Your task to perform on an android device: turn off picture-in-picture Image 0: 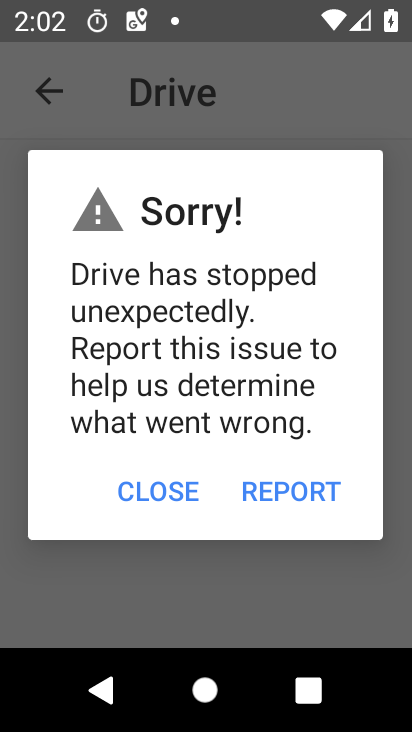
Step 0: press home button
Your task to perform on an android device: turn off picture-in-picture Image 1: 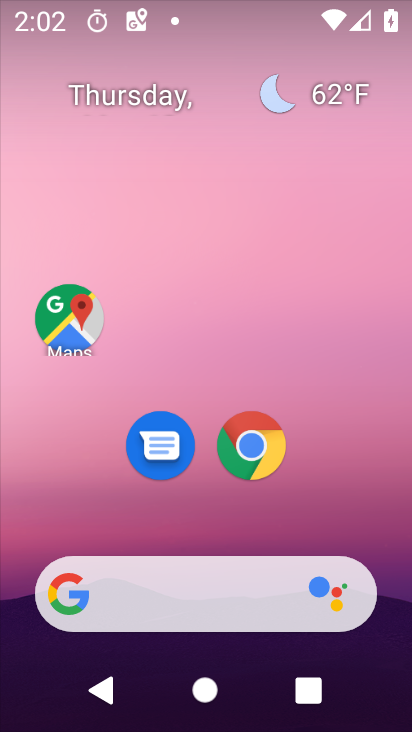
Step 1: click (262, 465)
Your task to perform on an android device: turn off picture-in-picture Image 2: 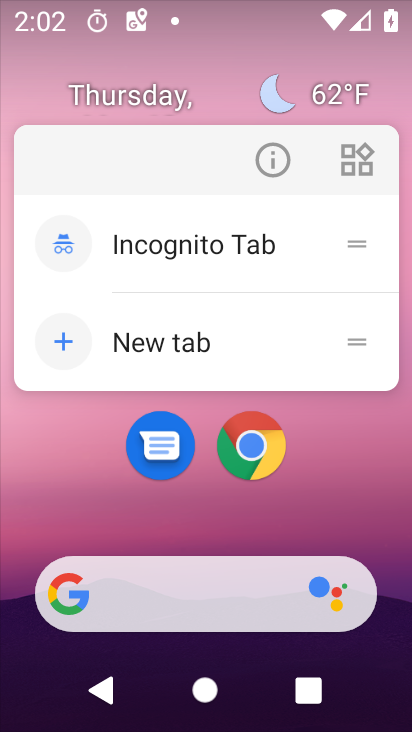
Step 2: click (275, 164)
Your task to perform on an android device: turn off picture-in-picture Image 3: 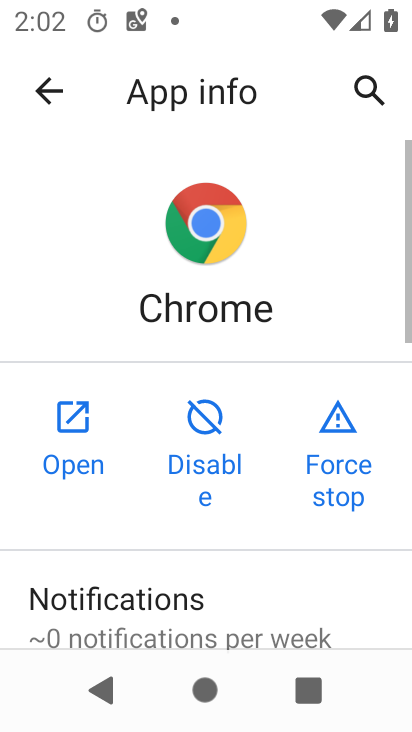
Step 3: drag from (202, 555) to (199, 24)
Your task to perform on an android device: turn off picture-in-picture Image 4: 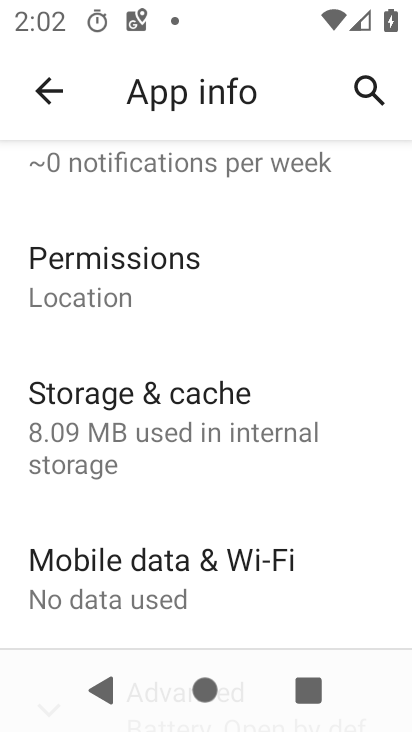
Step 4: drag from (114, 554) to (129, 256)
Your task to perform on an android device: turn off picture-in-picture Image 5: 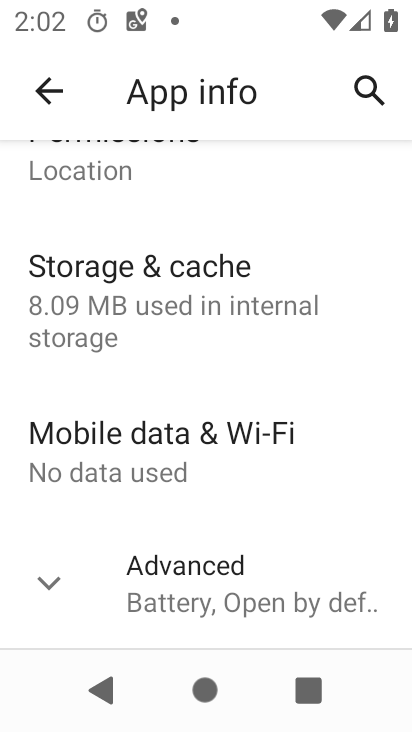
Step 5: click (155, 585)
Your task to perform on an android device: turn off picture-in-picture Image 6: 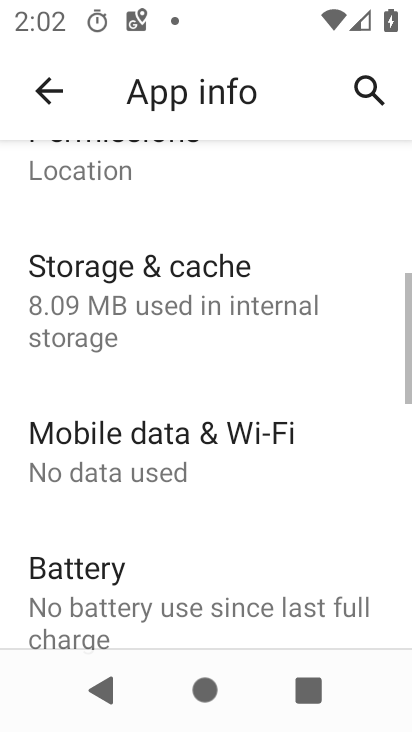
Step 6: drag from (199, 599) to (208, 169)
Your task to perform on an android device: turn off picture-in-picture Image 7: 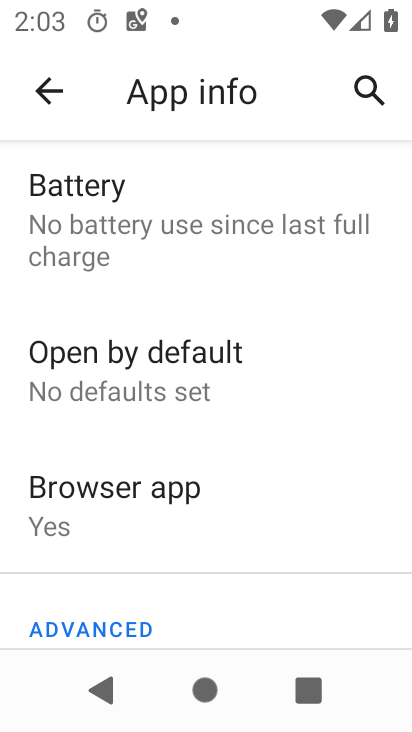
Step 7: drag from (152, 492) to (156, 76)
Your task to perform on an android device: turn off picture-in-picture Image 8: 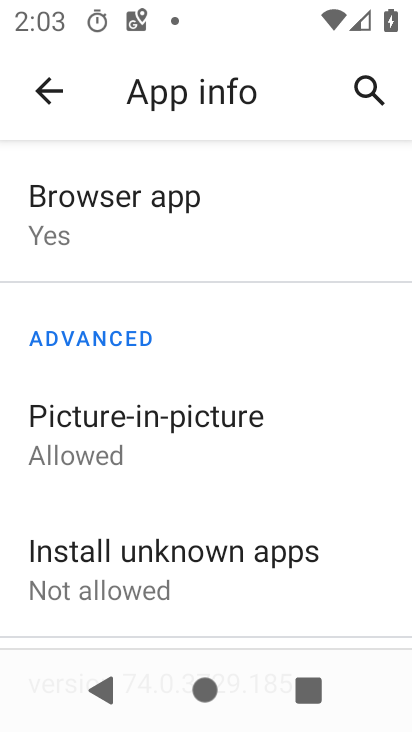
Step 8: click (152, 435)
Your task to perform on an android device: turn off picture-in-picture Image 9: 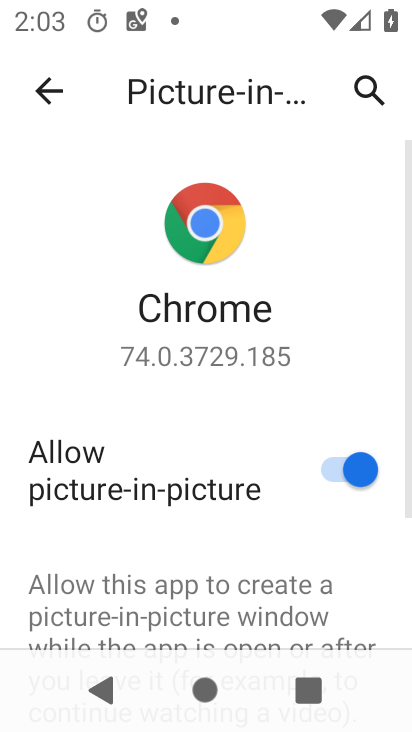
Step 9: click (346, 471)
Your task to perform on an android device: turn off picture-in-picture Image 10: 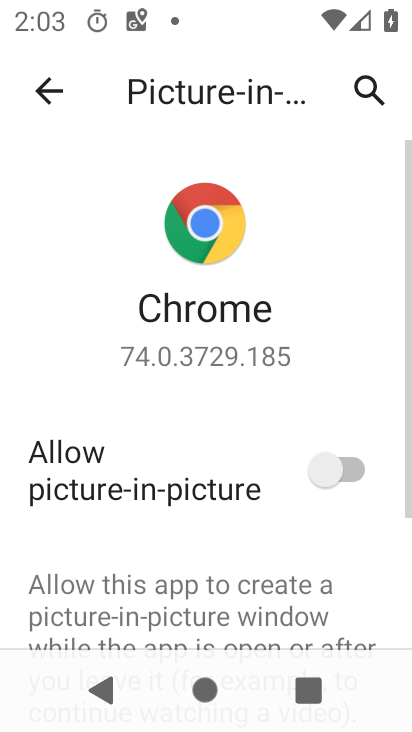
Step 10: task complete